Your task to perform on an android device: change the clock display to digital Image 0: 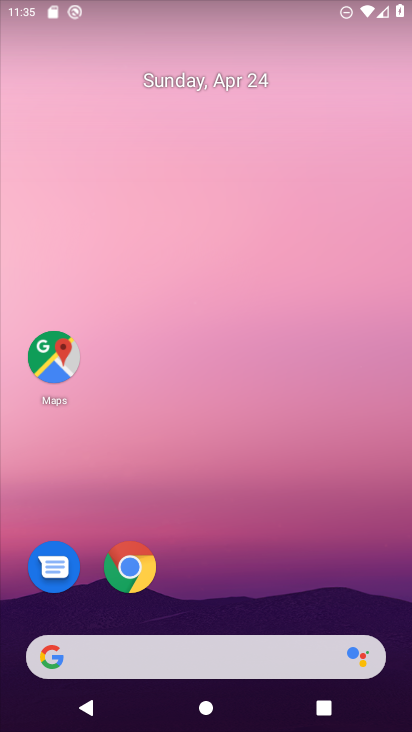
Step 0: drag from (323, 508) to (411, 604)
Your task to perform on an android device: change the clock display to digital Image 1: 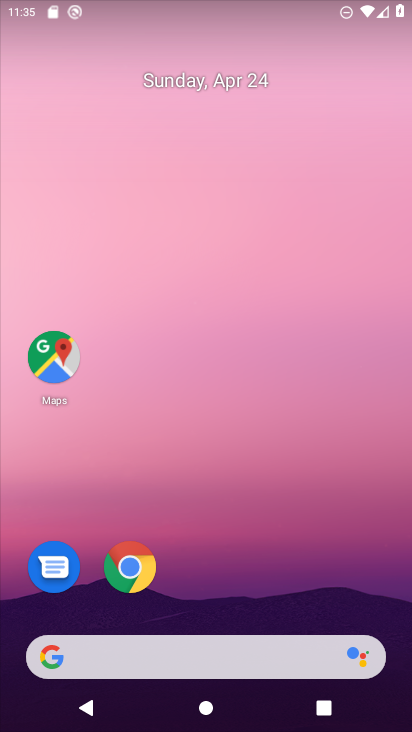
Step 1: drag from (177, 598) to (230, 7)
Your task to perform on an android device: change the clock display to digital Image 2: 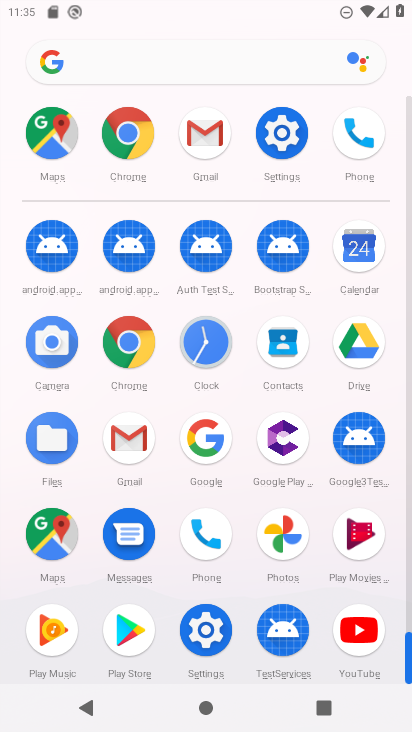
Step 2: click (209, 350)
Your task to perform on an android device: change the clock display to digital Image 3: 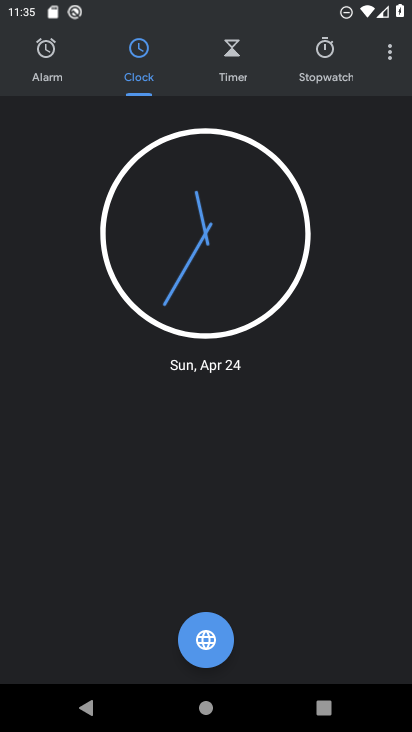
Step 3: click (400, 46)
Your task to perform on an android device: change the clock display to digital Image 4: 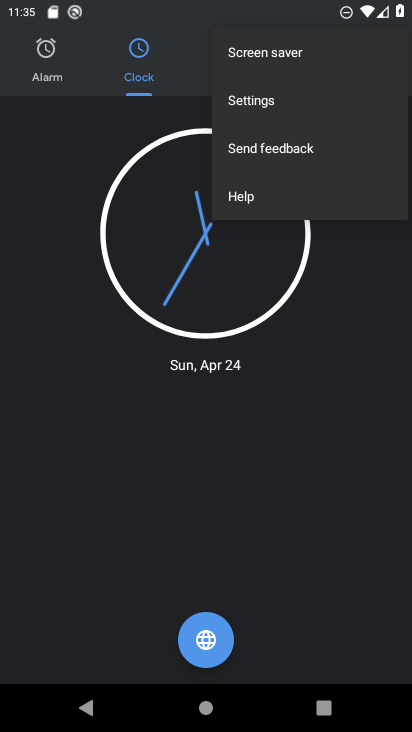
Step 4: click (254, 98)
Your task to perform on an android device: change the clock display to digital Image 5: 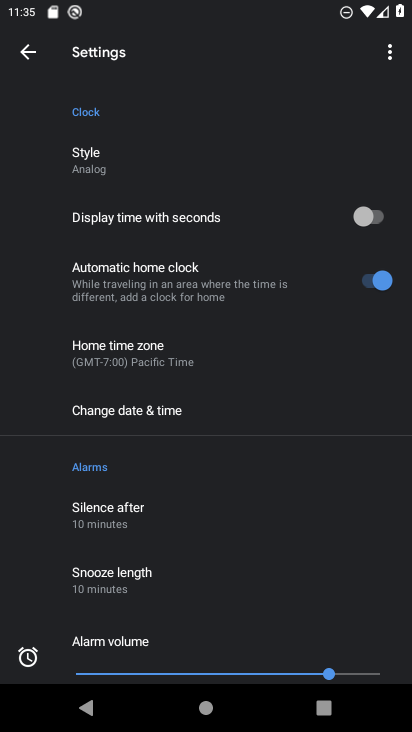
Step 5: click (200, 160)
Your task to perform on an android device: change the clock display to digital Image 6: 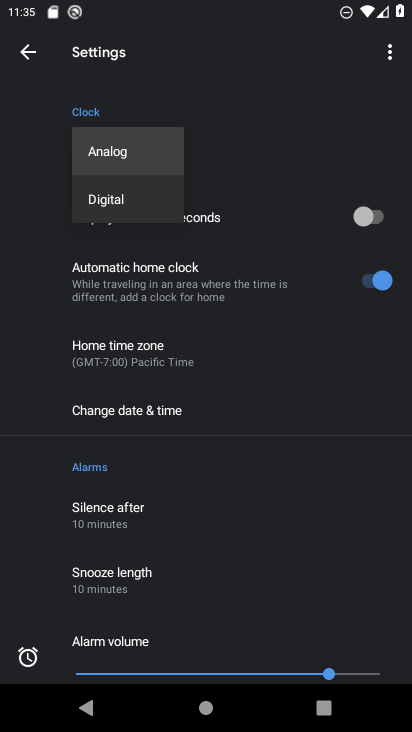
Step 6: click (136, 192)
Your task to perform on an android device: change the clock display to digital Image 7: 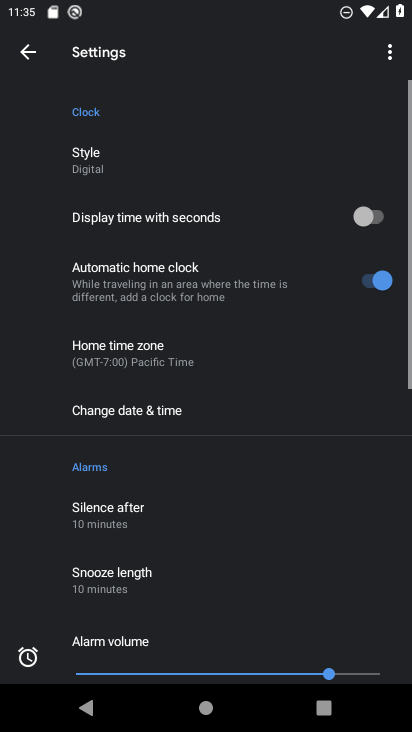
Step 7: task complete